Your task to perform on an android device: Open Google Chrome Image 0: 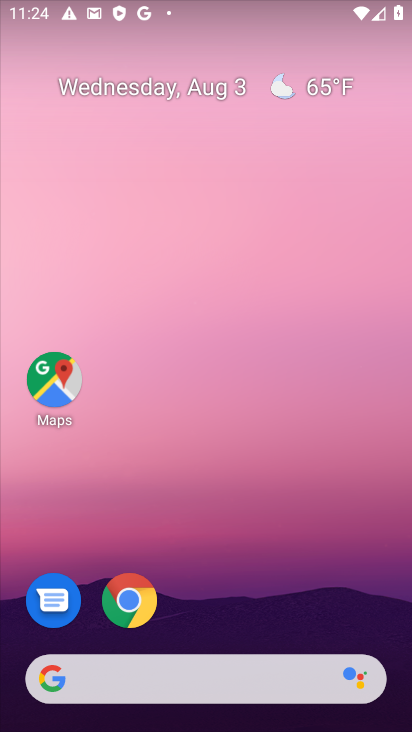
Step 0: click (147, 594)
Your task to perform on an android device: Open Google Chrome Image 1: 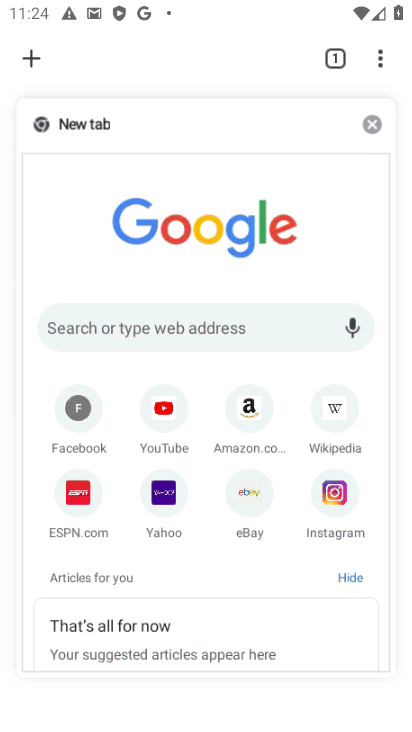
Step 1: click (145, 145)
Your task to perform on an android device: Open Google Chrome Image 2: 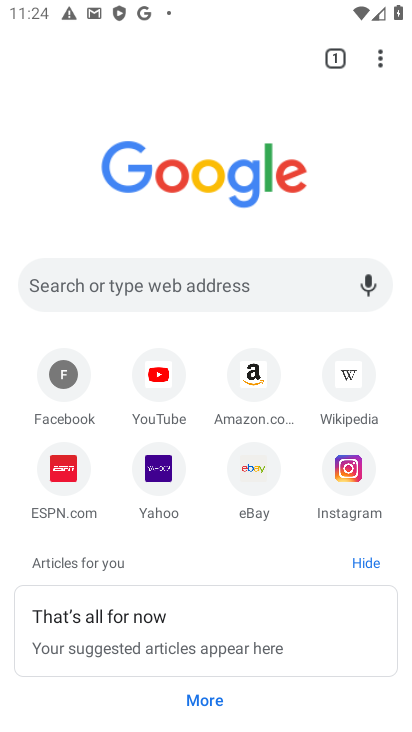
Step 2: task complete